Your task to perform on an android device: Search for razer huntsman on bestbuy, select the first entry, and add it to the cart. Image 0: 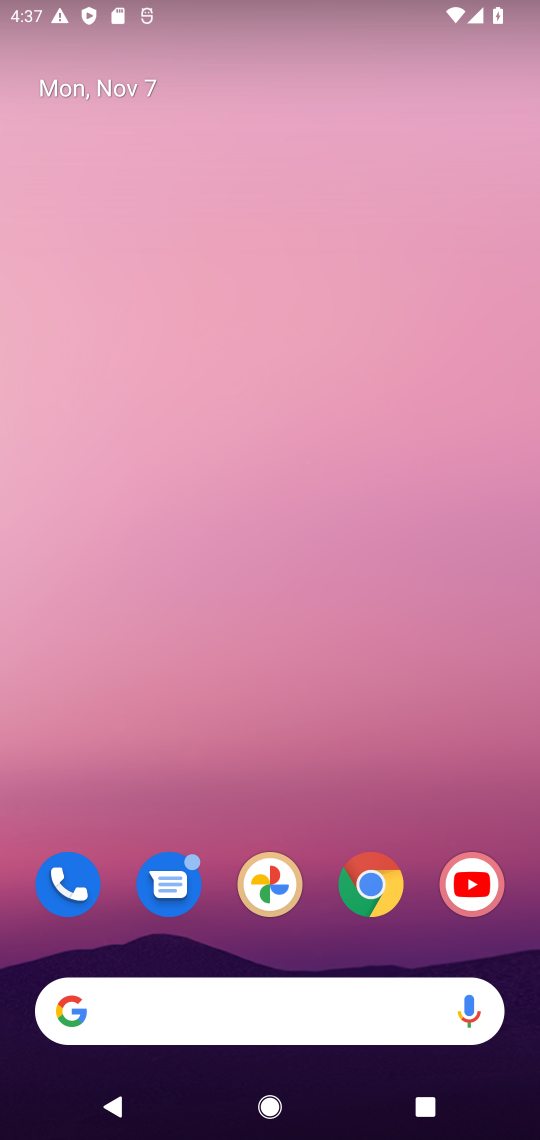
Step 0: drag from (334, 954) to (339, 78)
Your task to perform on an android device: Search for razer huntsman on bestbuy, select the first entry, and add it to the cart. Image 1: 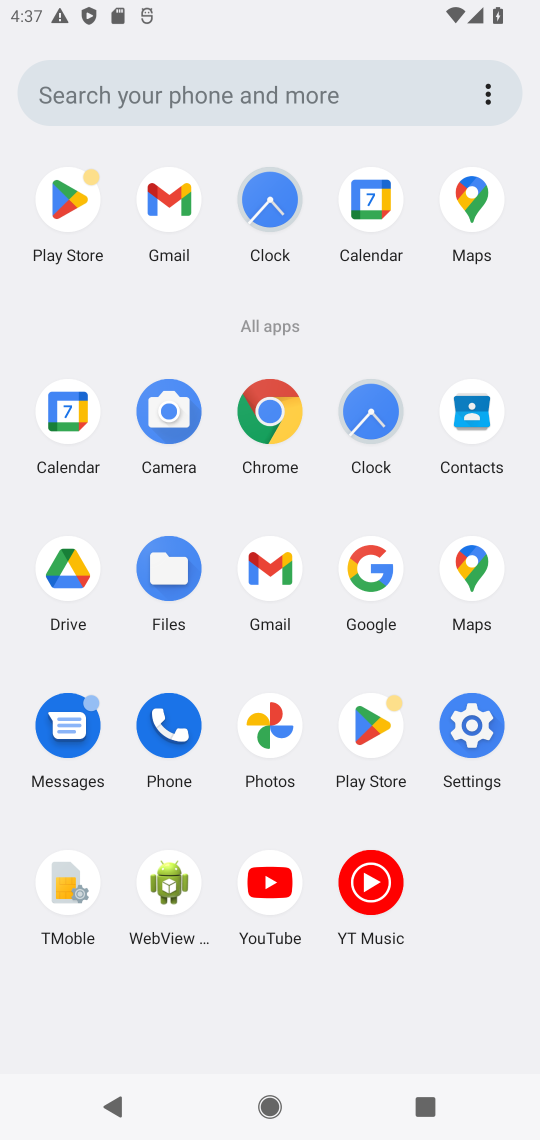
Step 1: click (261, 423)
Your task to perform on an android device: Search for razer huntsman on bestbuy, select the first entry, and add it to the cart. Image 2: 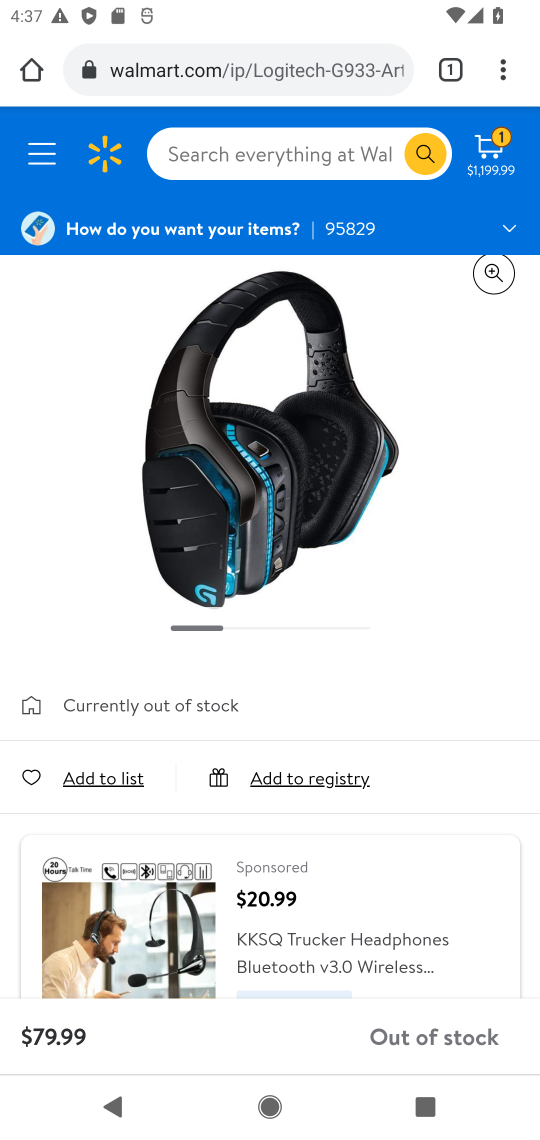
Step 2: click (285, 69)
Your task to perform on an android device: Search for razer huntsman on bestbuy, select the first entry, and add it to the cart. Image 3: 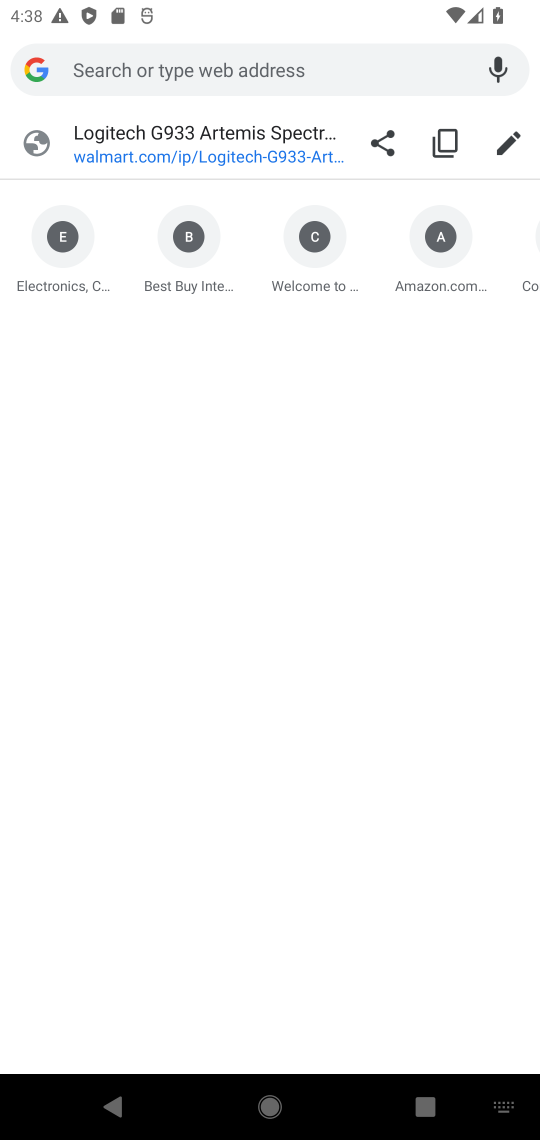
Step 3: type "bestbuy.com"
Your task to perform on an android device: Search for razer huntsman on bestbuy, select the first entry, and add it to the cart. Image 4: 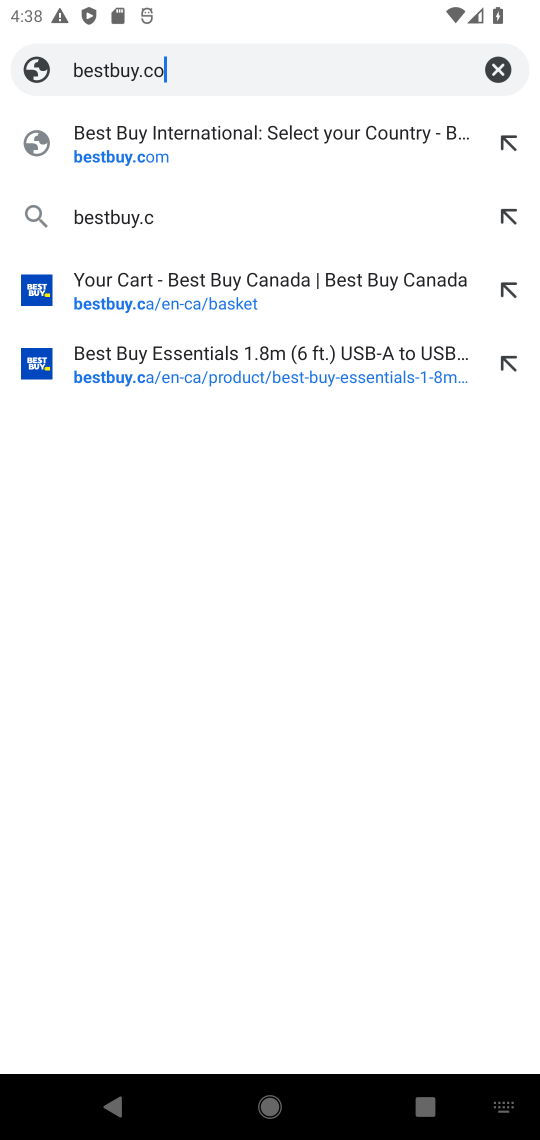
Step 4: press enter
Your task to perform on an android device: Search for razer huntsman on bestbuy, select the first entry, and add it to the cart. Image 5: 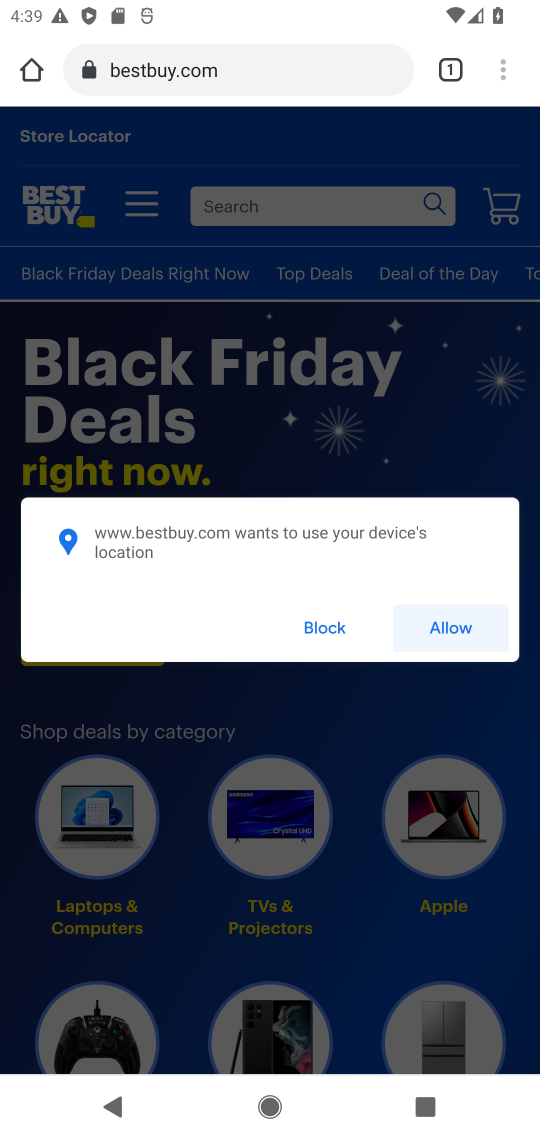
Step 5: click (333, 631)
Your task to perform on an android device: Search for razer huntsman on bestbuy, select the first entry, and add it to the cart. Image 6: 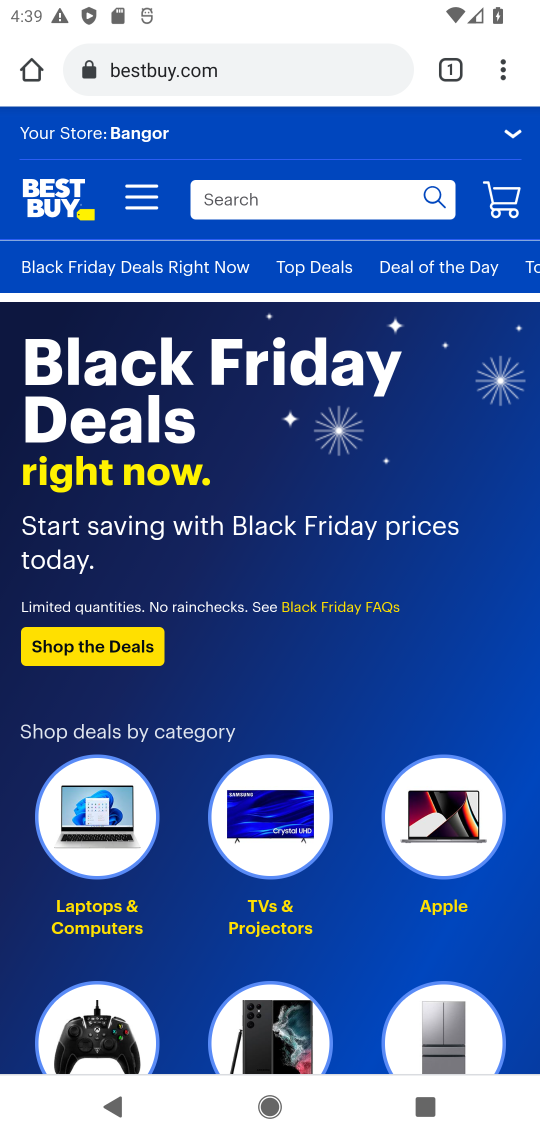
Step 6: click (322, 187)
Your task to perform on an android device: Search for razer huntsman on bestbuy, select the first entry, and add it to the cart. Image 7: 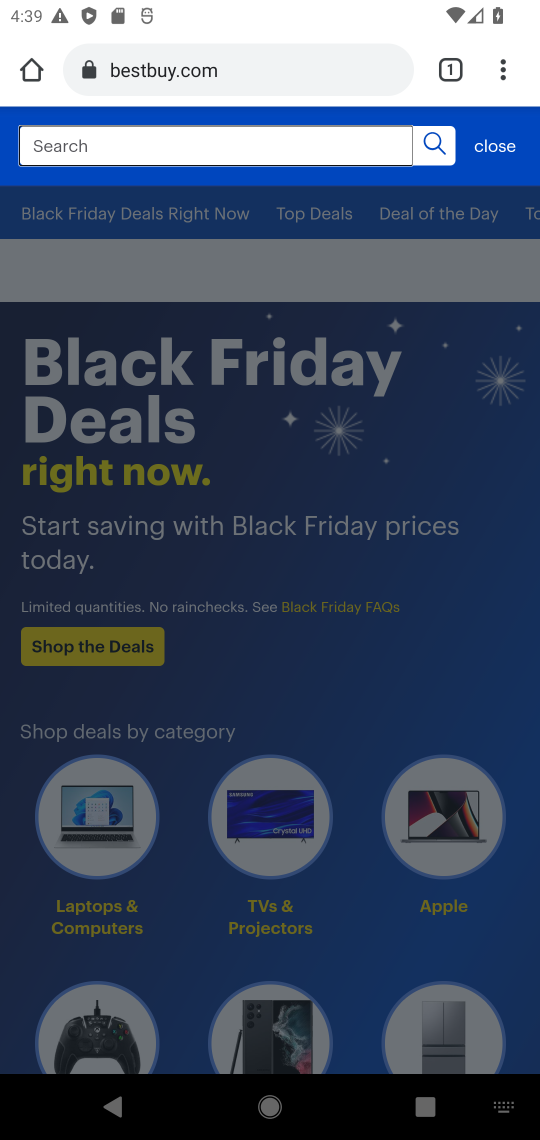
Step 7: type "razer huntsman"
Your task to perform on an android device: Search for razer huntsman on bestbuy, select the first entry, and add it to the cart. Image 8: 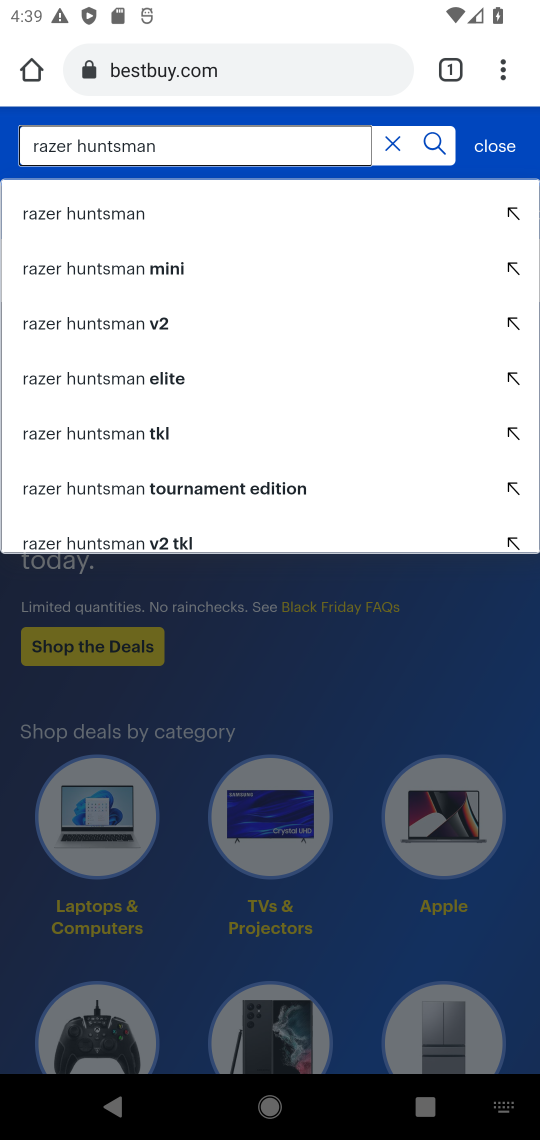
Step 8: press enter
Your task to perform on an android device: Search for razer huntsman on bestbuy, select the first entry, and add it to the cart. Image 9: 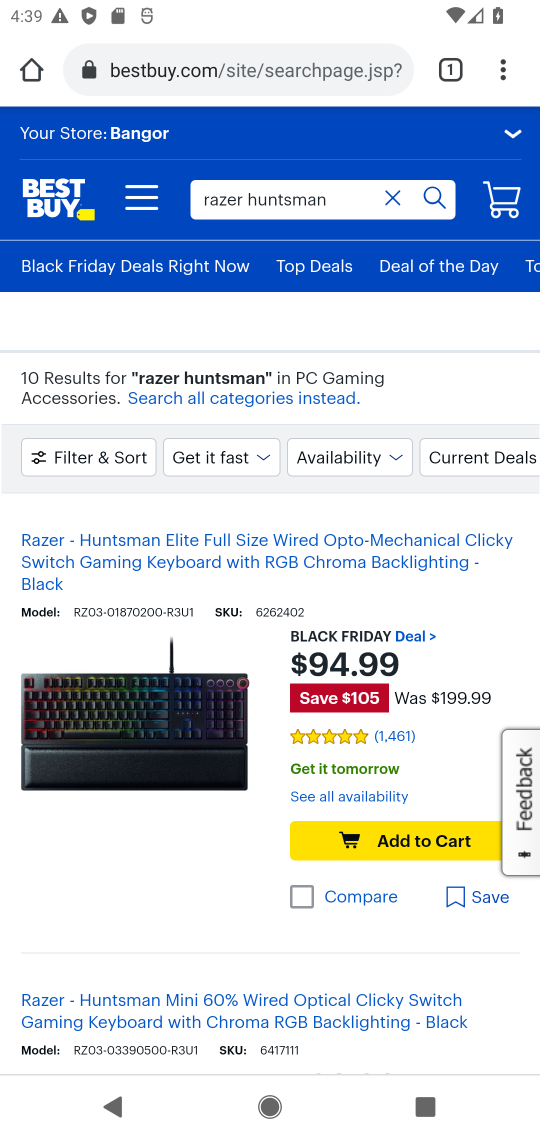
Step 9: click (152, 548)
Your task to perform on an android device: Search for razer huntsman on bestbuy, select the first entry, and add it to the cart. Image 10: 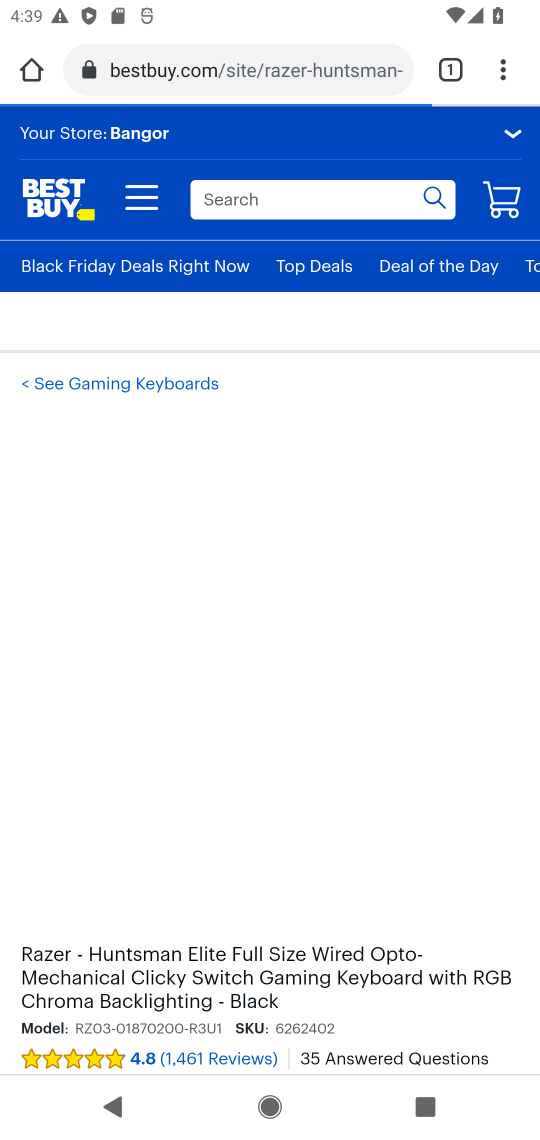
Step 10: click (194, 569)
Your task to perform on an android device: Search for razer huntsman on bestbuy, select the first entry, and add it to the cart. Image 11: 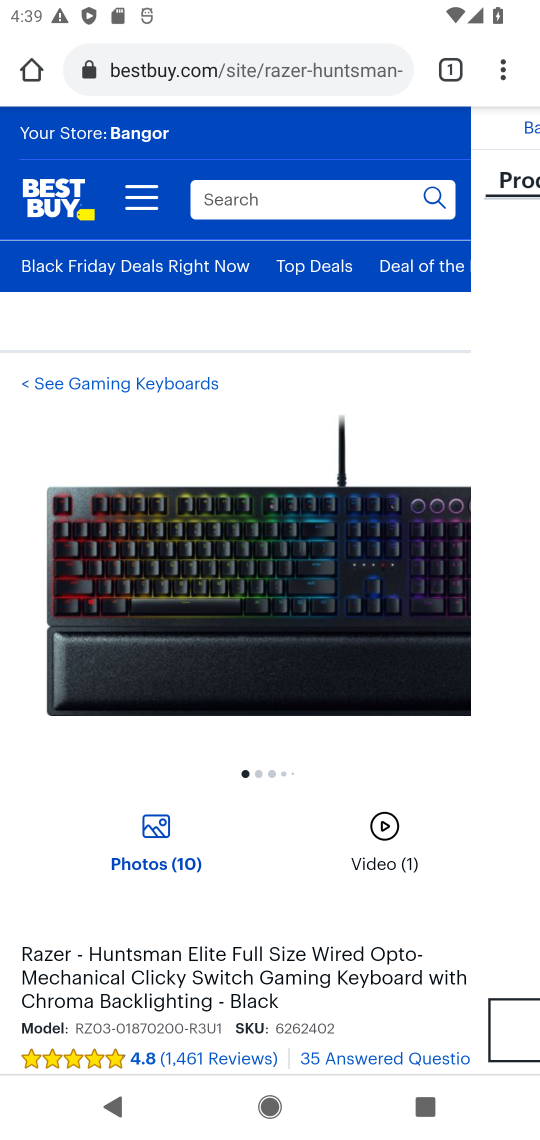
Step 11: drag from (302, 598) to (314, 200)
Your task to perform on an android device: Search for razer huntsman on bestbuy, select the first entry, and add it to the cart. Image 12: 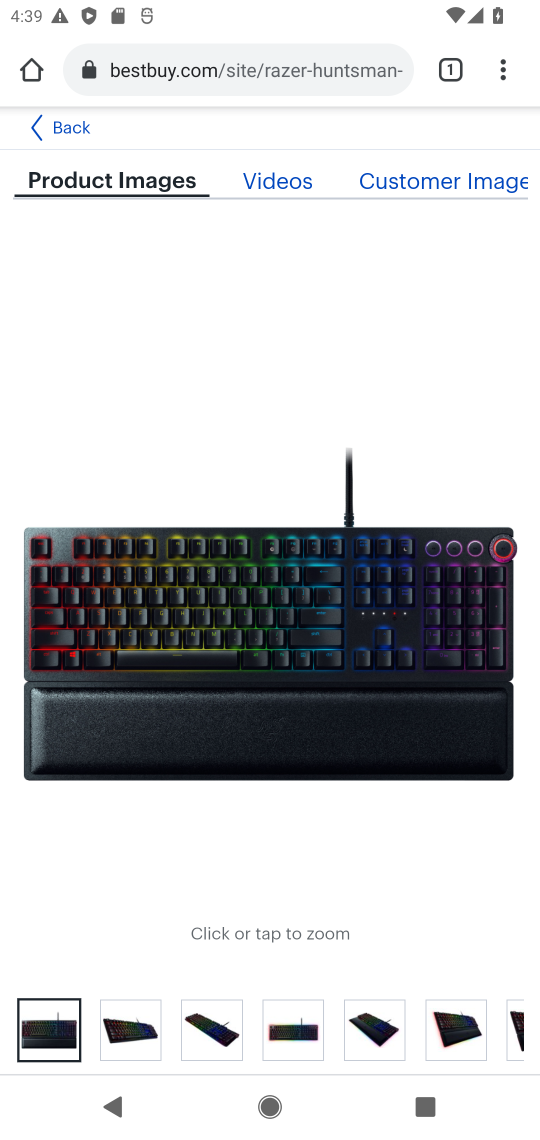
Step 12: press back button
Your task to perform on an android device: Search for razer huntsman on bestbuy, select the first entry, and add it to the cart. Image 13: 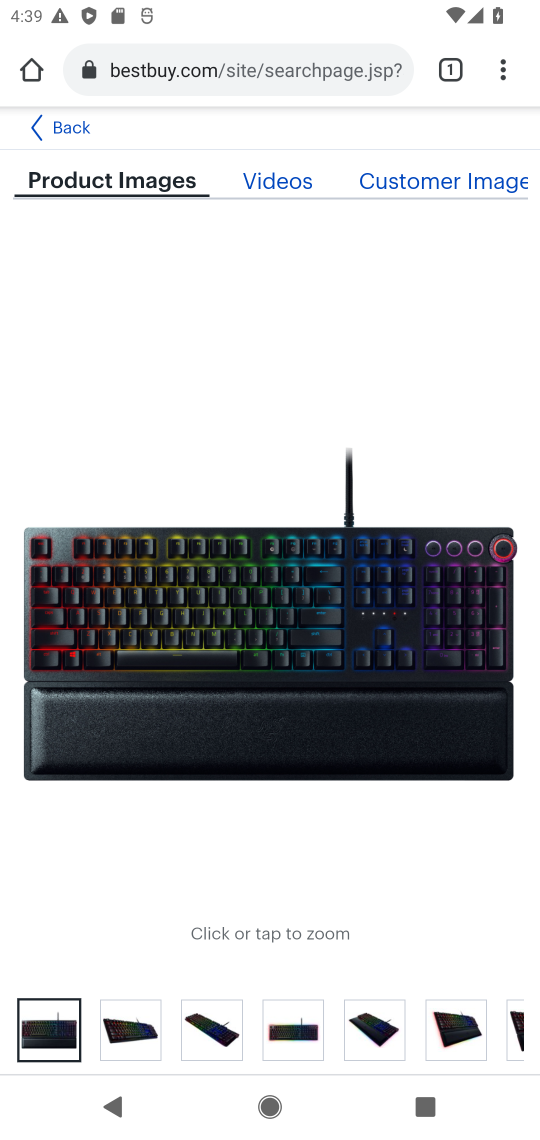
Step 13: drag from (361, 905) to (314, 719)
Your task to perform on an android device: Search for razer huntsman on bestbuy, select the first entry, and add it to the cart. Image 14: 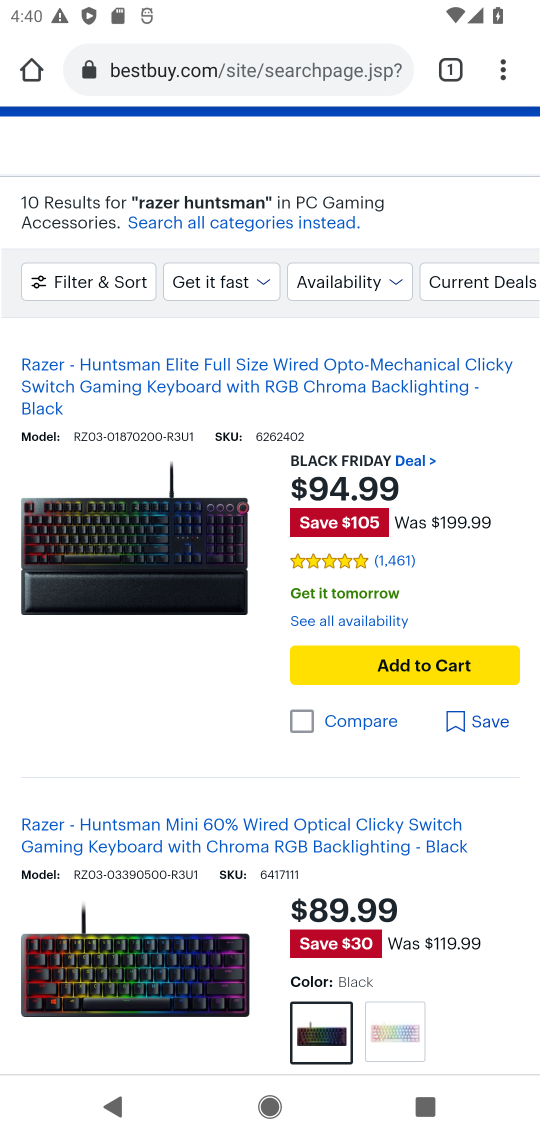
Step 14: click (460, 661)
Your task to perform on an android device: Search for razer huntsman on bestbuy, select the first entry, and add it to the cart. Image 15: 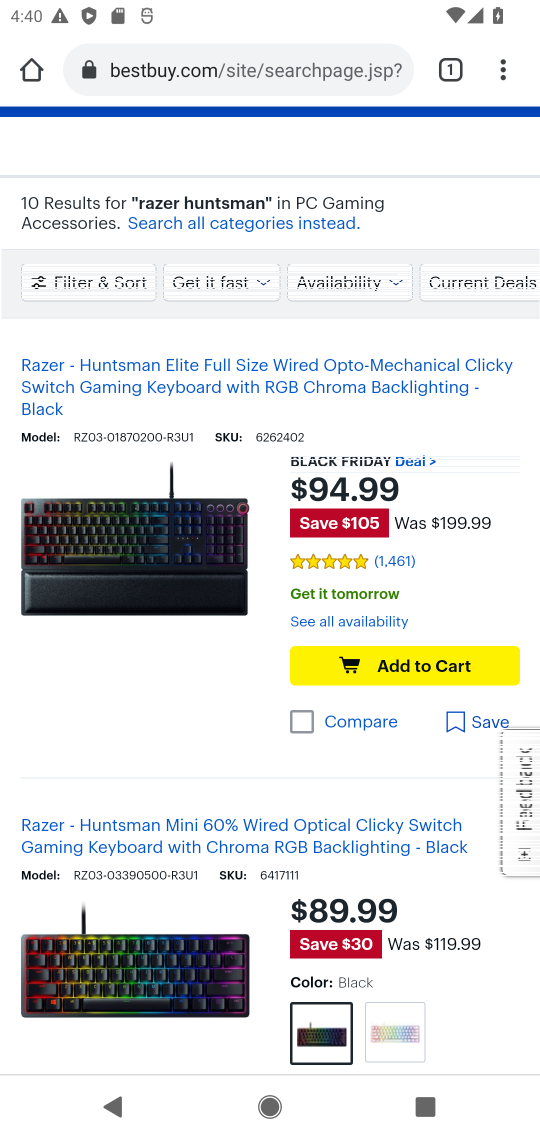
Step 15: task complete